Your task to perform on an android device: Open location settings Image 0: 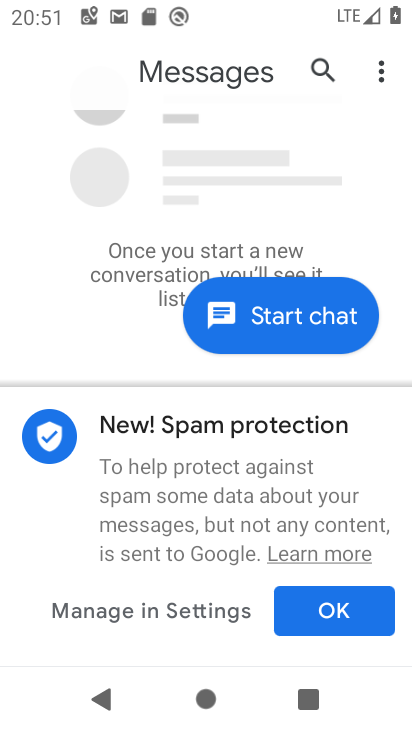
Step 0: press back button
Your task to perform on an android device: Open location settings Image 1: 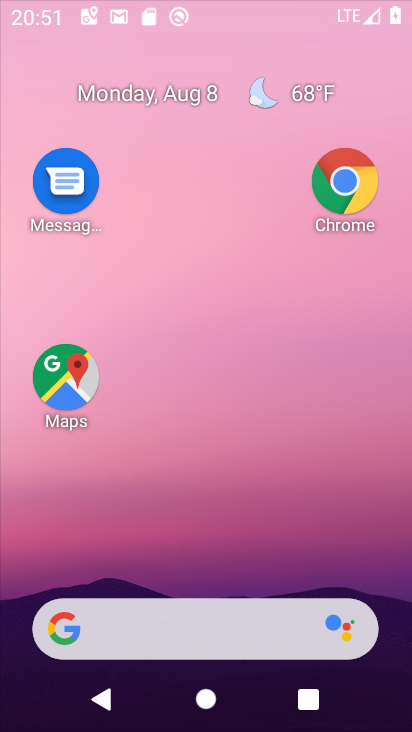
Step 1: press back button
Your task to perform on an android device: Open location settings Image 2: 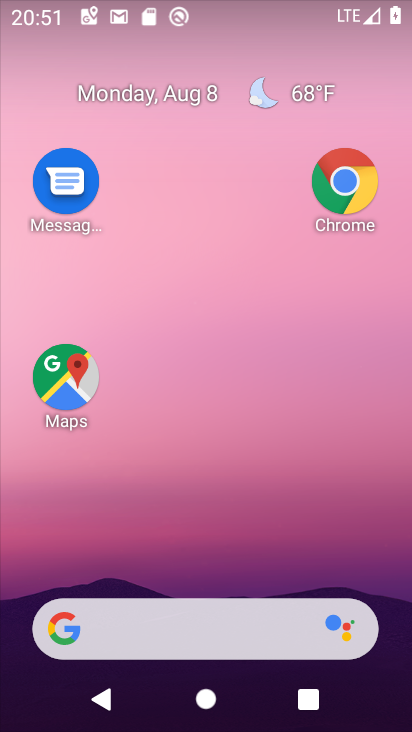
Step 2: drag from (212, 556) to (142, 119)
Your task to perform on an android device: Open location settings Image 3: 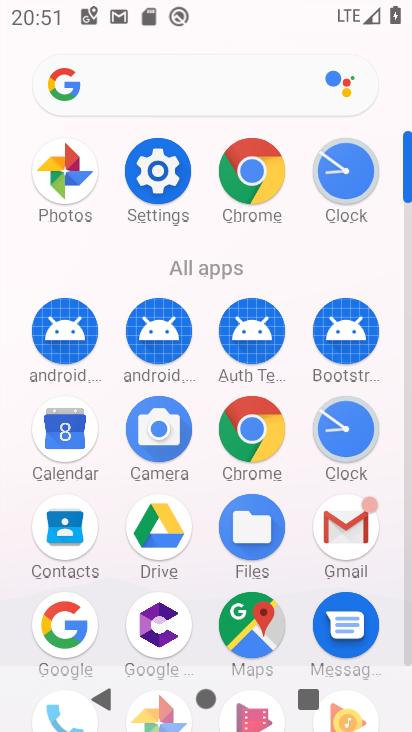
Step 3: click (158, 157)
Your task to perform on an android device: Open location settings Image 4: 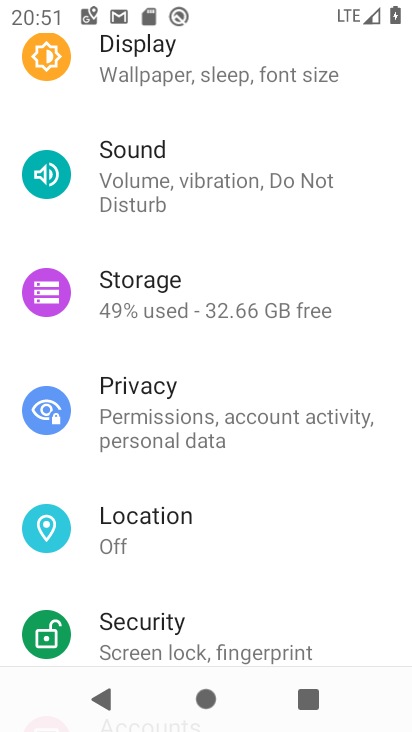
Step 4: click (157, 498)
Your task to perform on an android device: Open location settings Image 5: 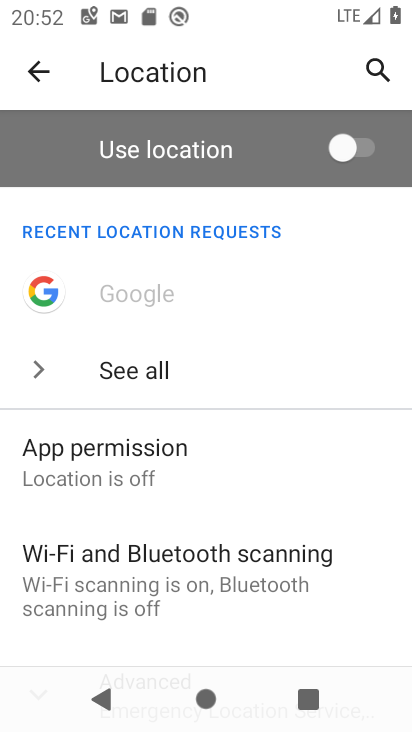
Step 5: click (107, 361)
Your task to perform on an android device: Open location settings Image 6: 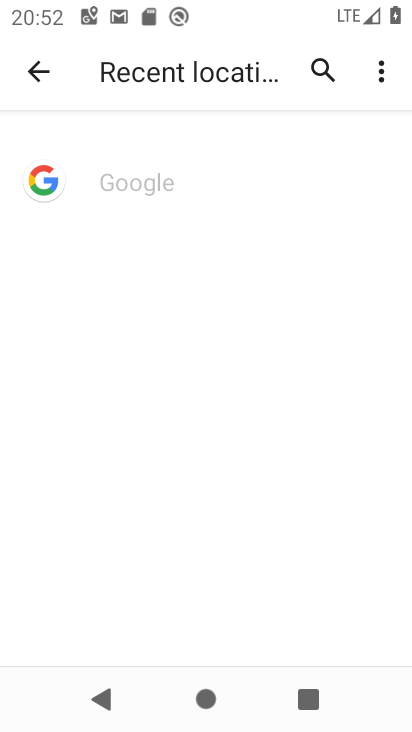
Step 6: click (39, 73)
Your task to perform on an android device: Open location settings Image 7: 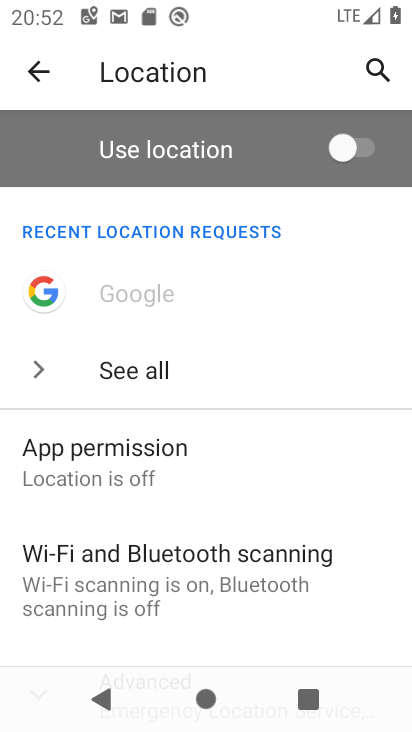
Step 7: task complete